Your task to perform on an android device: turn off wifi Image 0: 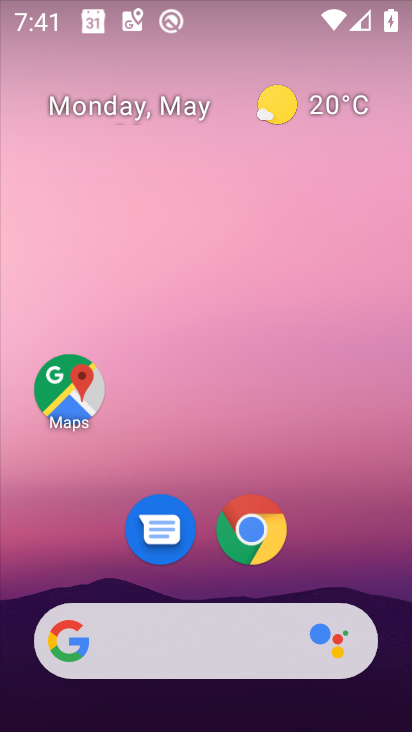
Step 0: drag from (237, 5) to (247, 296)
Your task to perform on an android device: turn off wifi Image 1: 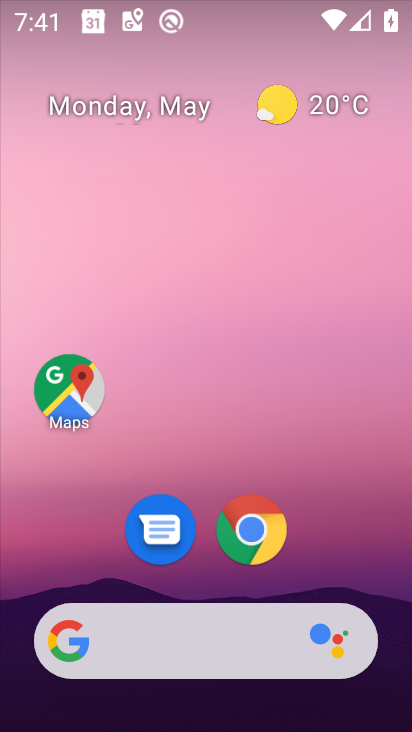
Step 1: drag from (206, 28) to (150, 214)
Your task to perform on an android device: turn off wifi Image 2: 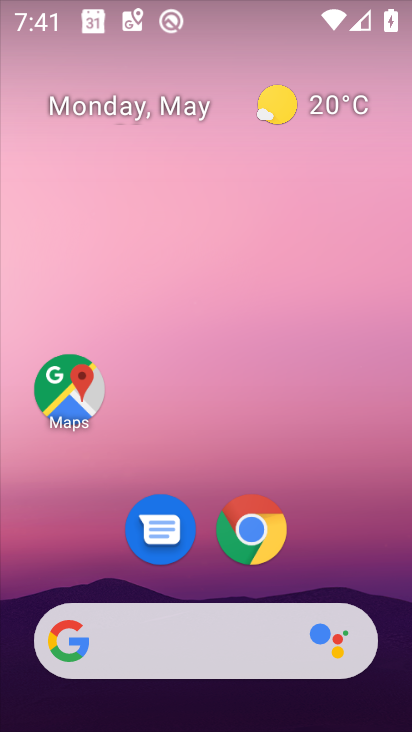
Step 2: drag from (250, 0) to (199, 300)
Your task to perform on an android device: turn off wifi Image 3: 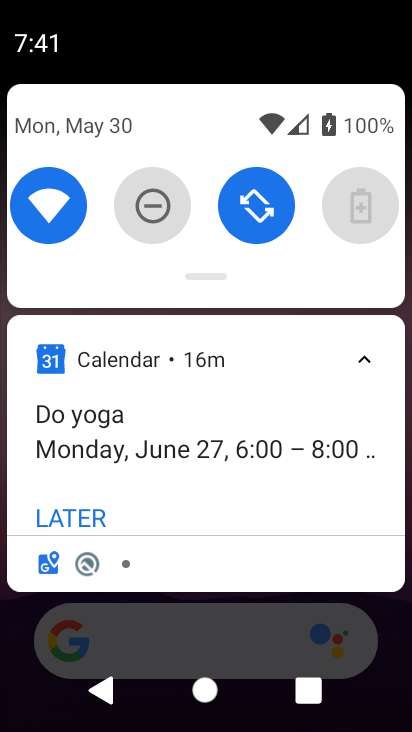
Step 3: click (43, 195)
Your task to perform on an android device: turn off wifi Image 4: 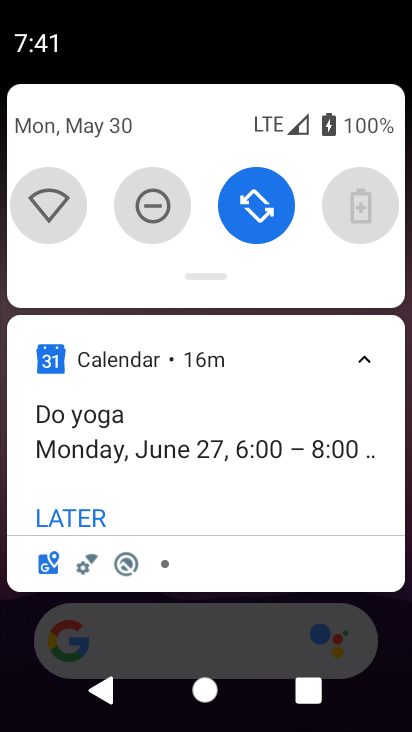
Step 4: task complete